Your task to perform on an android device: Find coffee shops on Maps Image 0: 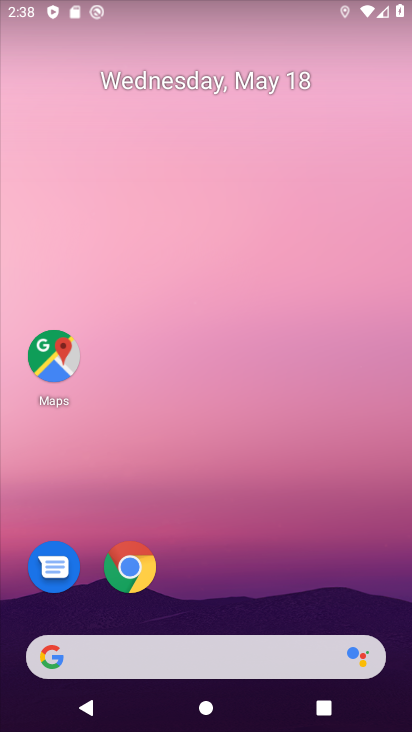
Step 0: click (57, 357)
Your task to perform on an android device: Find coffee shops on Maps Image 1: 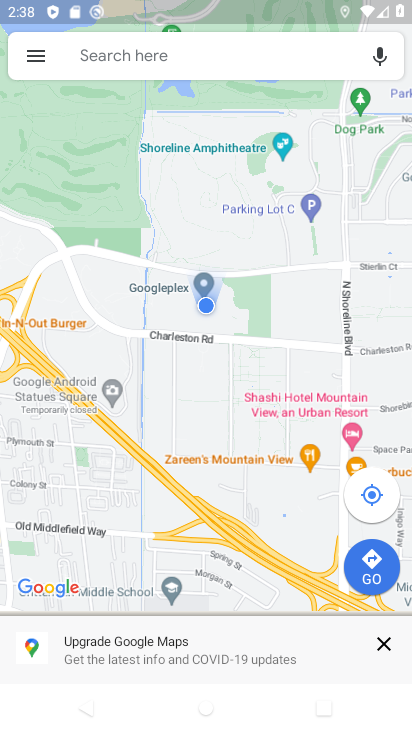
Step 1: click (157, 52)
Your task to perform on an android device: Find coffee shops on Maps Image 2: 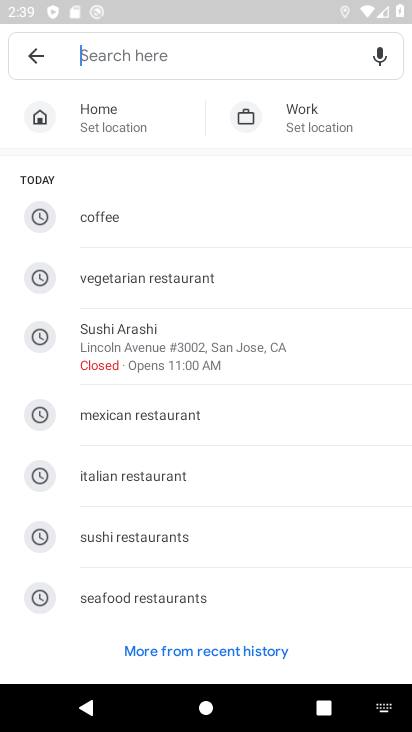
Step 2: type "coffee shops"
Your task to perform on an android device: Find coffee shops on Maps Image 3: 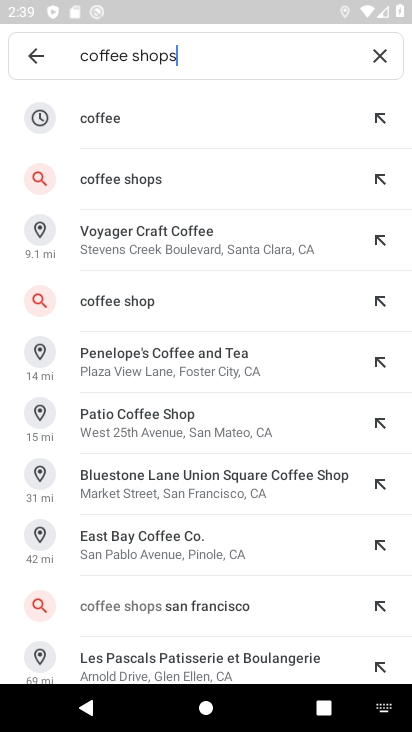
Step 3: click (207, 181)
Your task to perform on an android device: Find coffee shops on Maps Image 4: 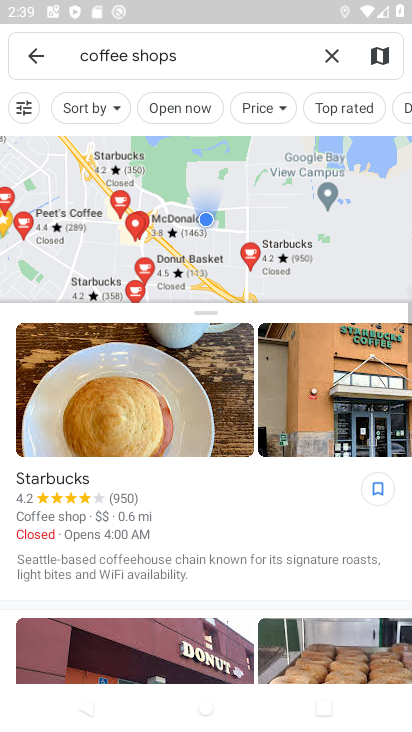
Step 4: task complete